Your task to perform on an android device: refresh tabs in the chrome app Image 0: 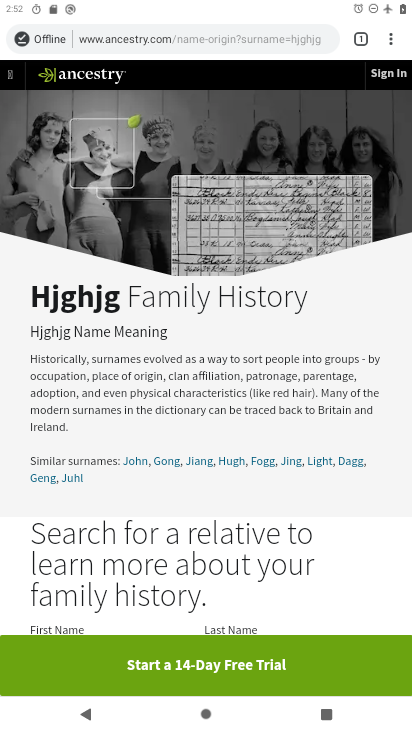
Step 0: drag from (225, 656) to (246, 397)
Your task to perform on an android device: refresh tabs in the chrome app Image 1: 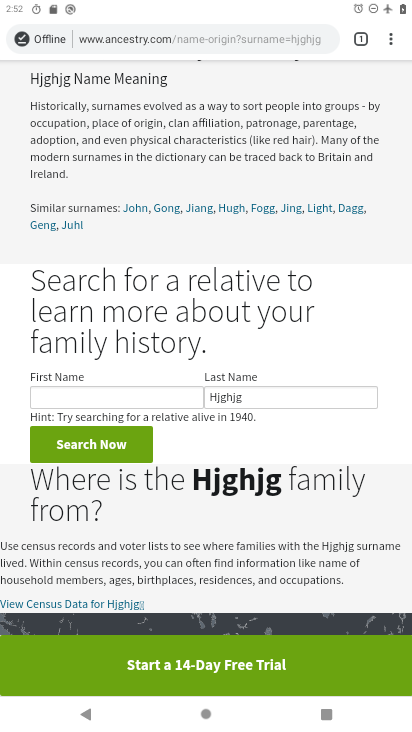
Step 1: press home button
Your task to perform on an android device: refresh tabs in the chrome app Image 2: 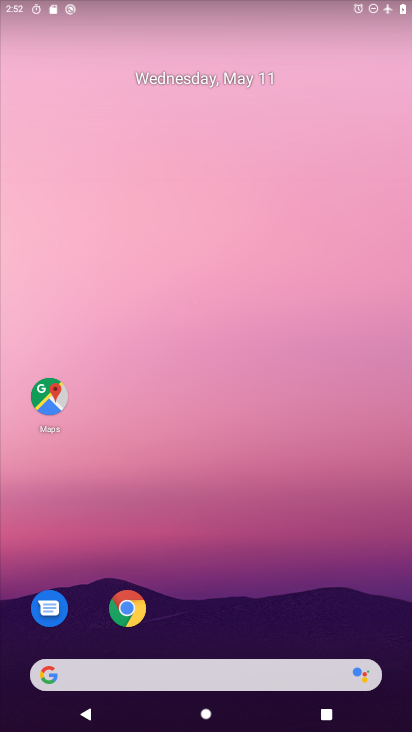
Step 2: drag from (194, 609) to (410, 467)
Your task to perform on an android device: refresh tabs in the chrome app Image 3: 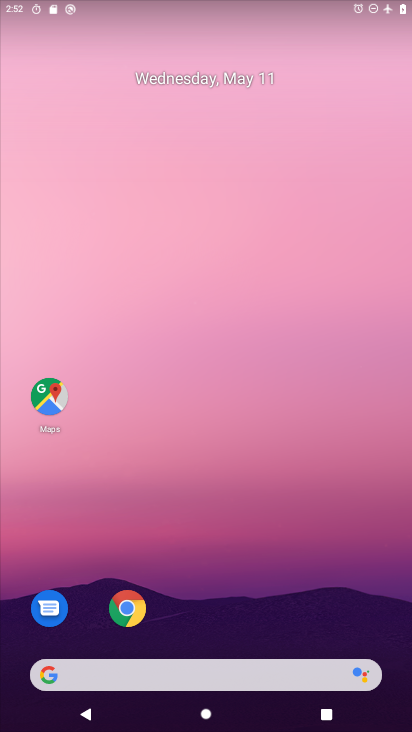
Step 3: drag from (287, 614) to (295, 193)
Your task to perform on an android device: refresh tabs in the chrome app Image 4: 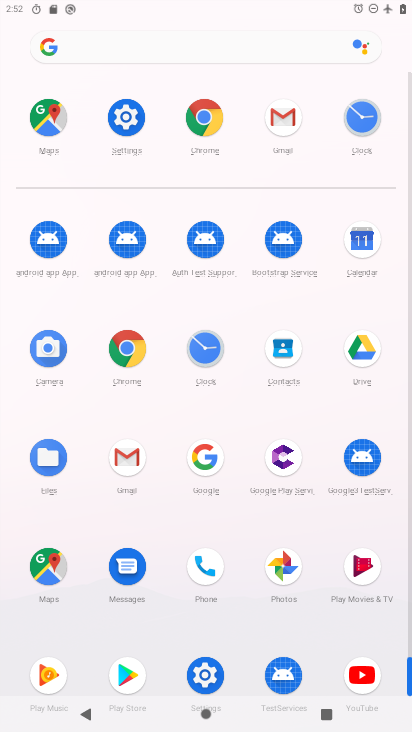
Step 4: click (200, 139)
Your task to perform on an android device: refresh tabs in the chrome app Image 5: 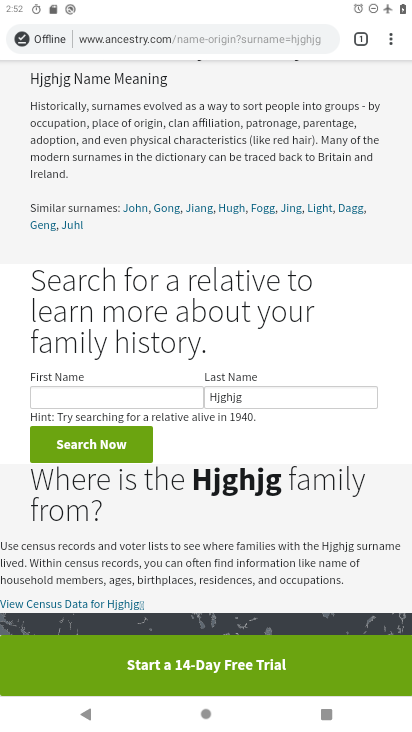
Step 5: click (394, 30)
Your task to perform on an android device: refresh tabs in the chrome app Image 6: 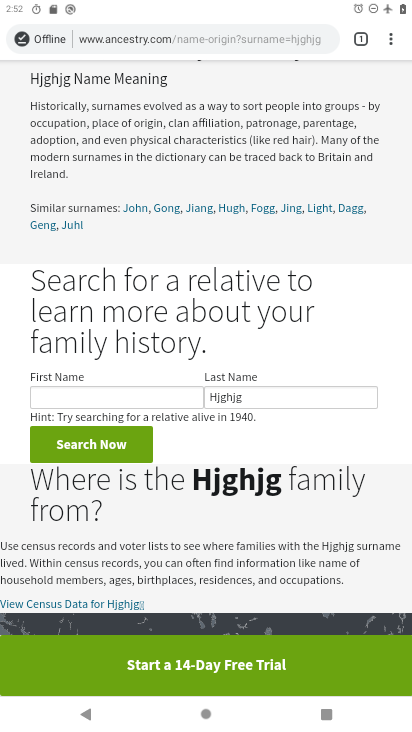
Step 6: click (394, 33)
Your task to perform on an android device: refresh tabs in the chrome app Image 7: 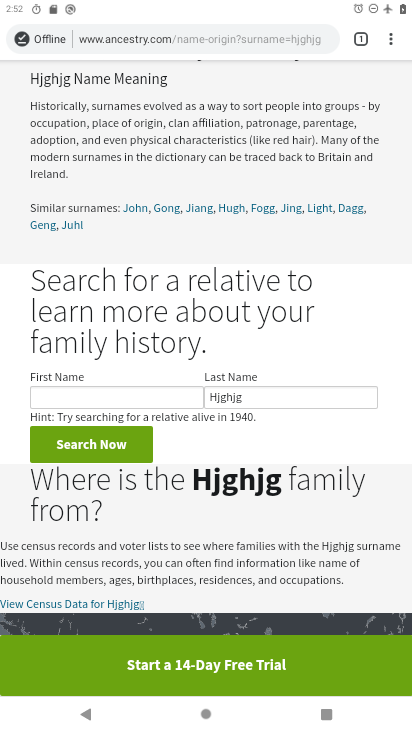
Step 7: click (393, 33)
Your task to perform on an android device: refresh tabs in the chrome app Image 8: 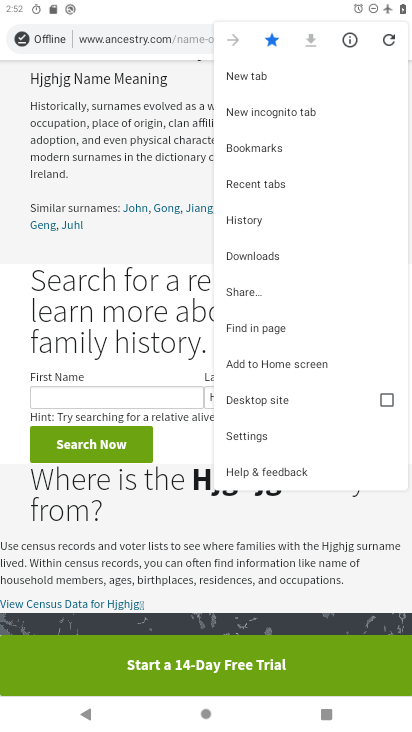
Step 8: drag from (243, 287) to (323, 80)
Your task to perform on an android device: refresh tabs in the chrome app Image 9: 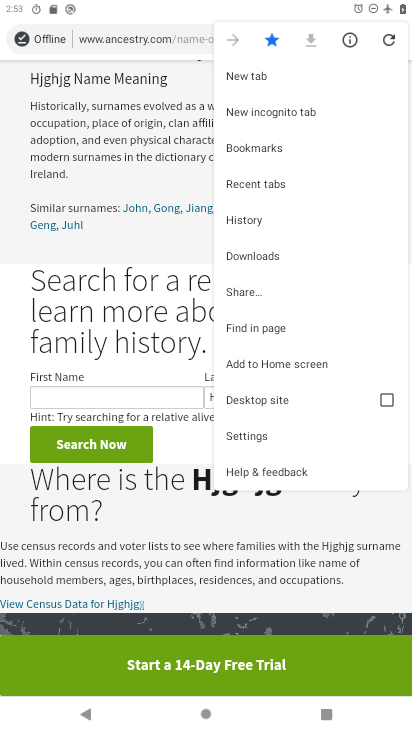
Step 9: click (388, 40)
Your task to perform on an android device: refresh tabs in the chrome app Image 10: 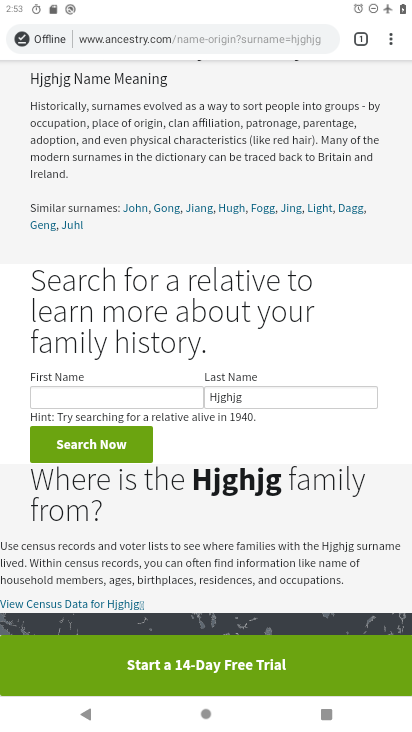
Step 10: task complete